Your task to perform on an android device: change notifications settings Image 0: 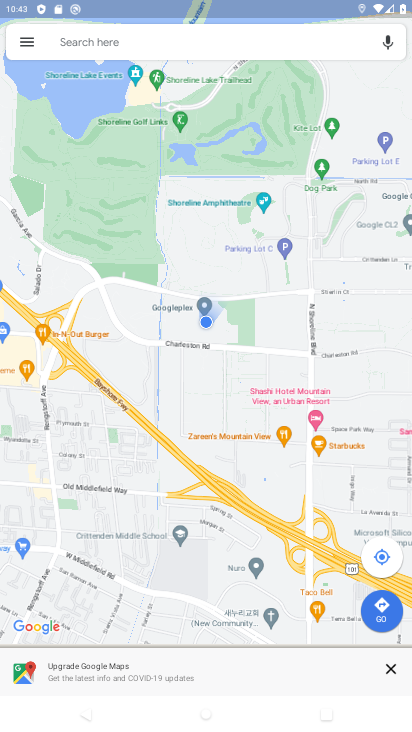
Step 0: press back button
Your task to perform on an android device: change notifications settings Image 1: 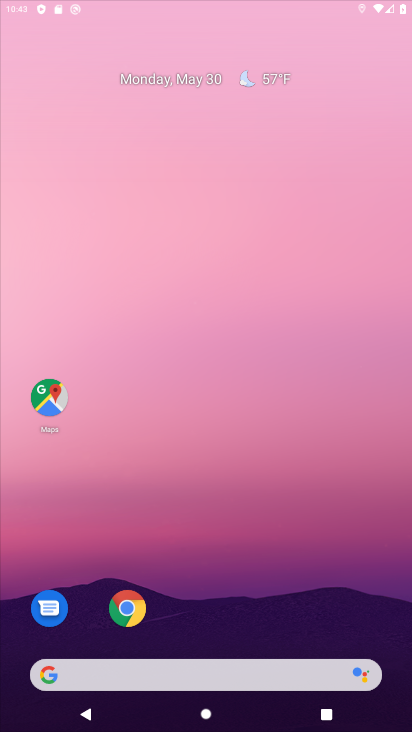
Step 1: press home button
Your task to perform on an android device: change notifications settings Image 2: 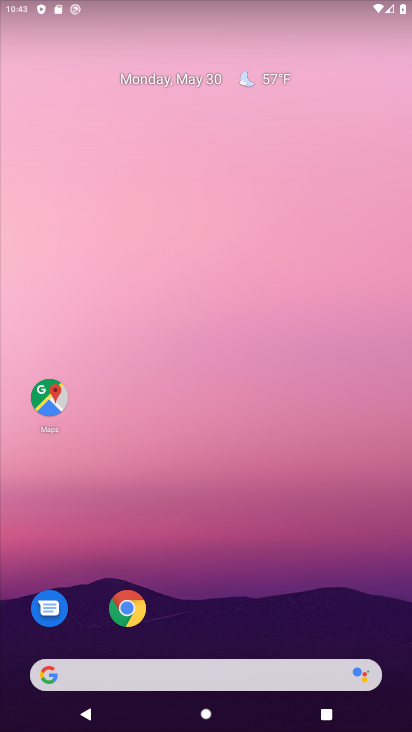
Step 2: drag from (246, 536) to (212, 12)
Your task to perform on an android device: change notifications settings Image 3: 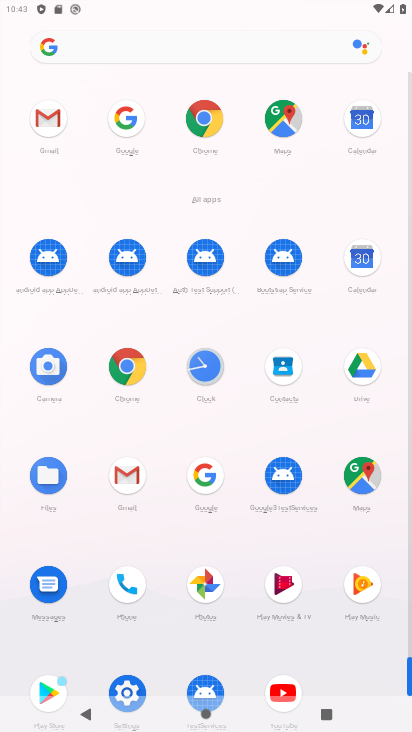
Step 3: drag from (11, 595) to (6, 290)
Your task to perform on an android device: change notifications settings Image 4: 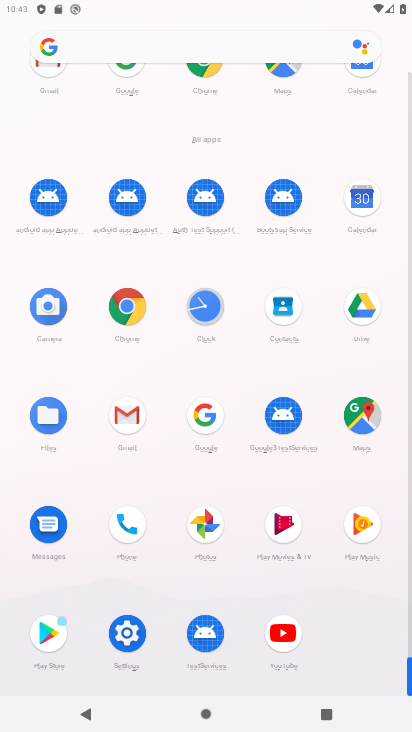
Step 4: click (124, 629)
Your task to perform on an android device: change notifications settings Image 5: 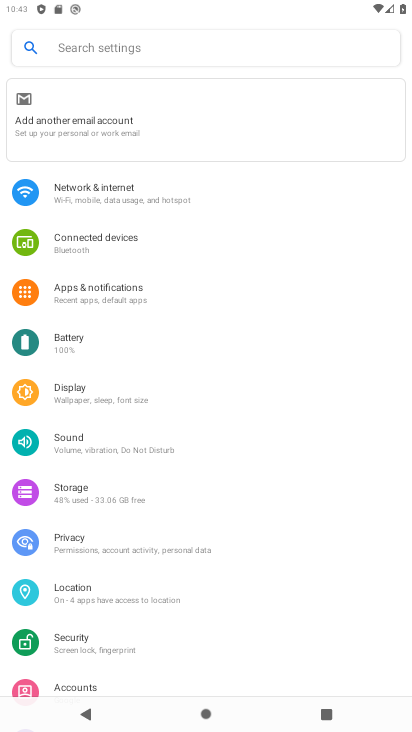
Step 5: click (101, 287)
Your task to perform on an android device: change notifications settings Image 6: 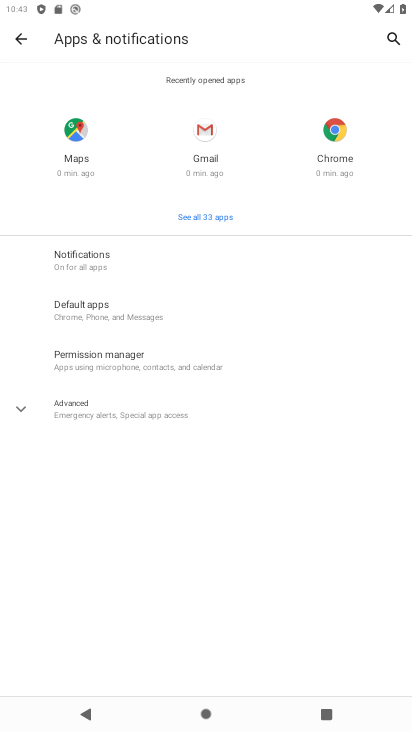
Step 6: click (41, 399)
Your task to perform on an android device: change notifications settings Image 7: 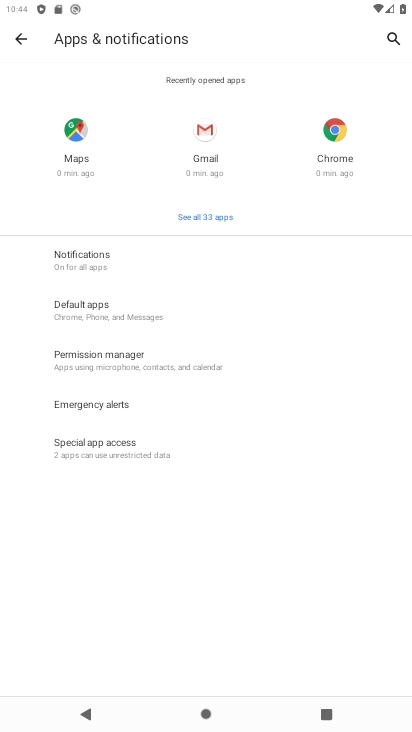
Step 7: click (126, 258)
Your task to perform on an android device: change notifications settings Image 8: 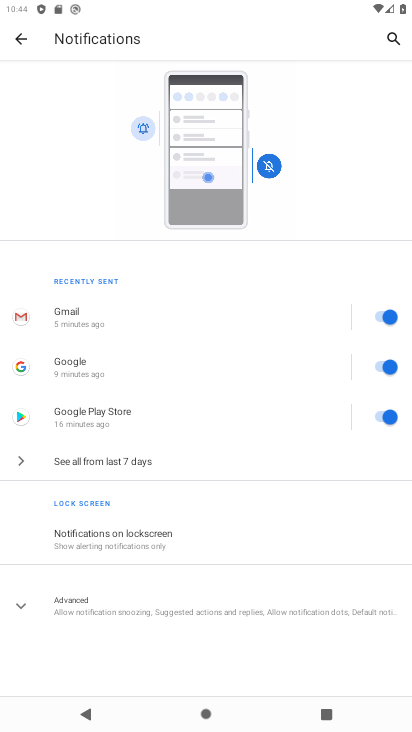
Step 8: drag from (199, 580) to (192, 223)
Your task to perform on an android device: change notifications settings Image 9: 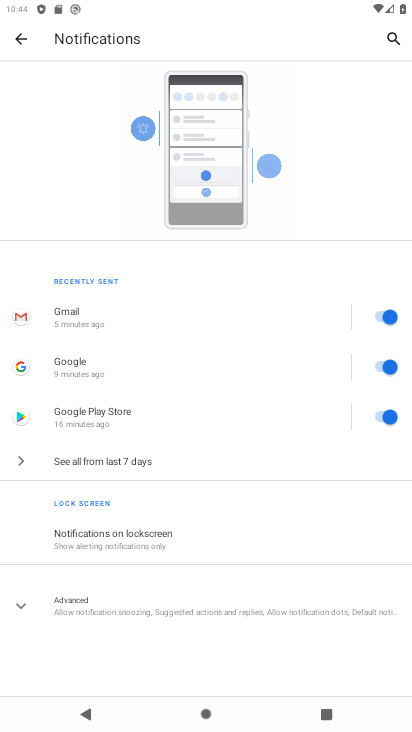
Step 9: click (25, 616)
Your task to perform on an android device: change notifications settings Image 10: 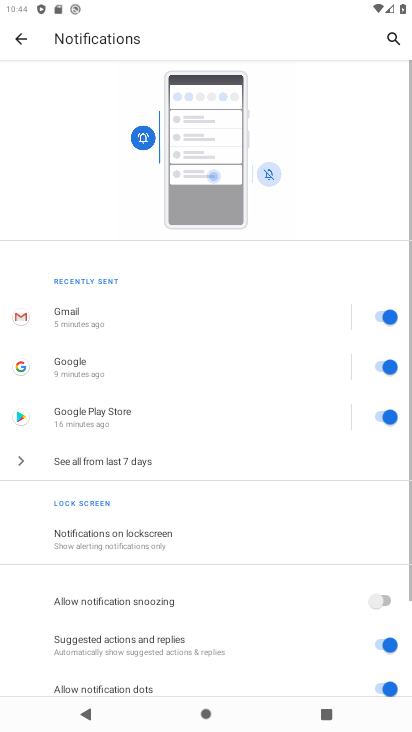
Step 10: task complete